Your task to perform on an android device: turn off data saver in the chrome app Image 0: 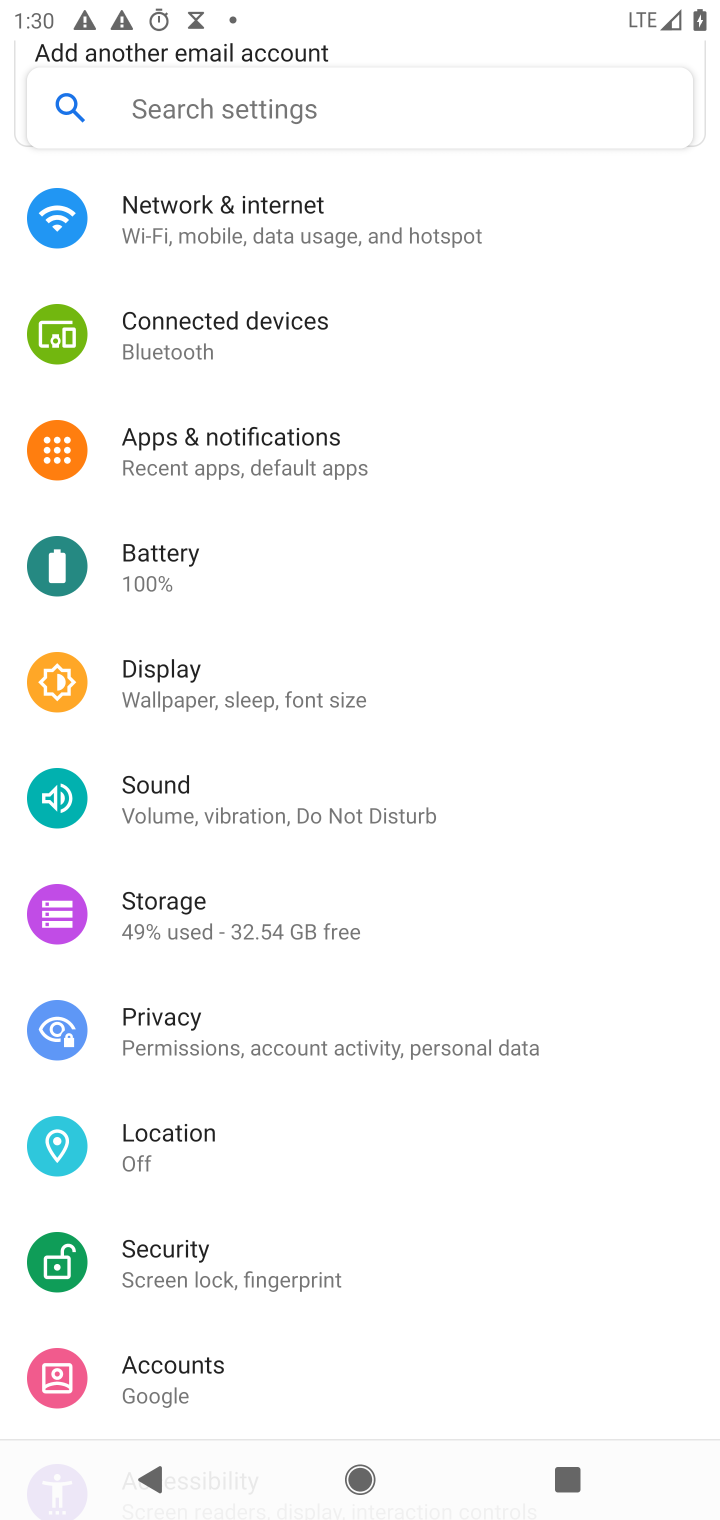
Step 0: press home button
Your task to perform on an android device: turn off data saver in the chrome app Image 1: 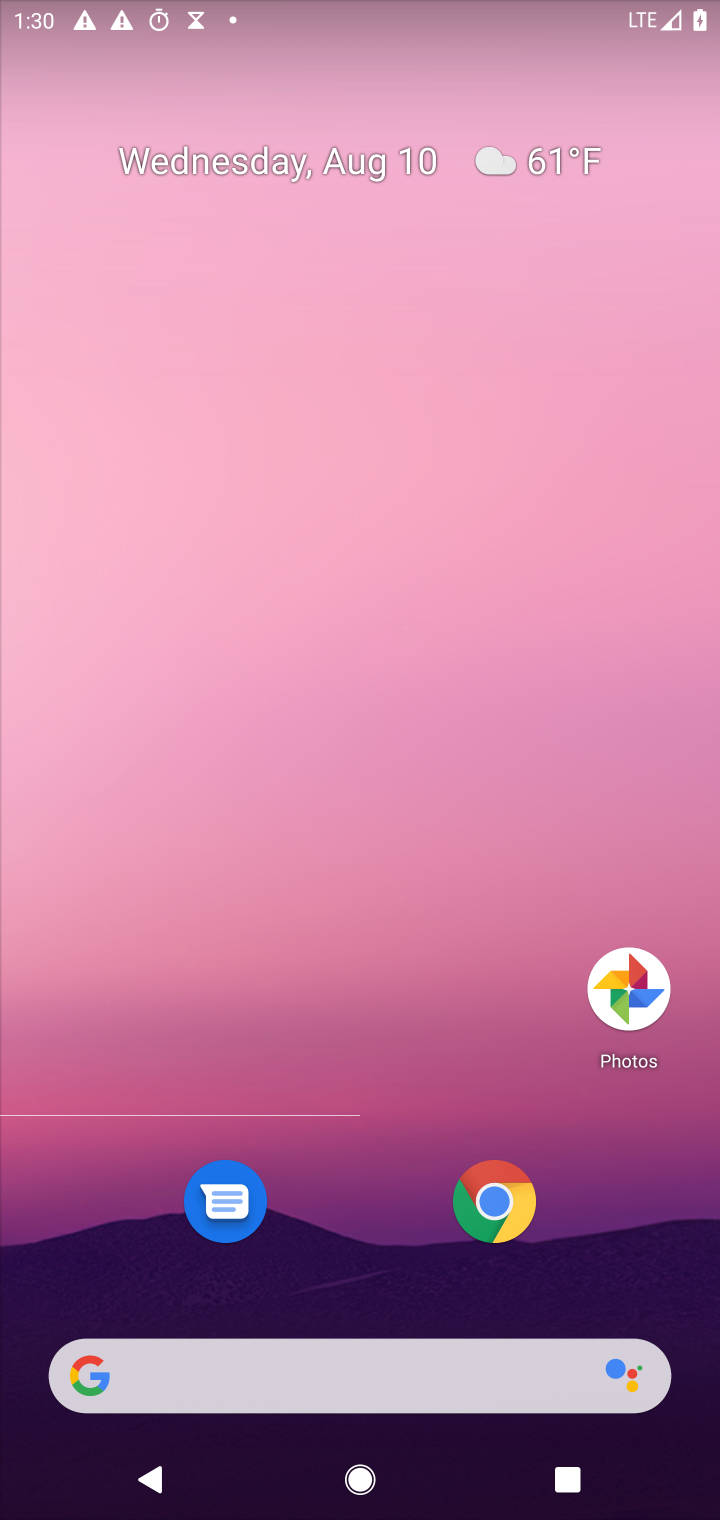
Step 1: click (499, 1206)
Your task to perform on an android device: turn off data saver in the chrome app Image 2: 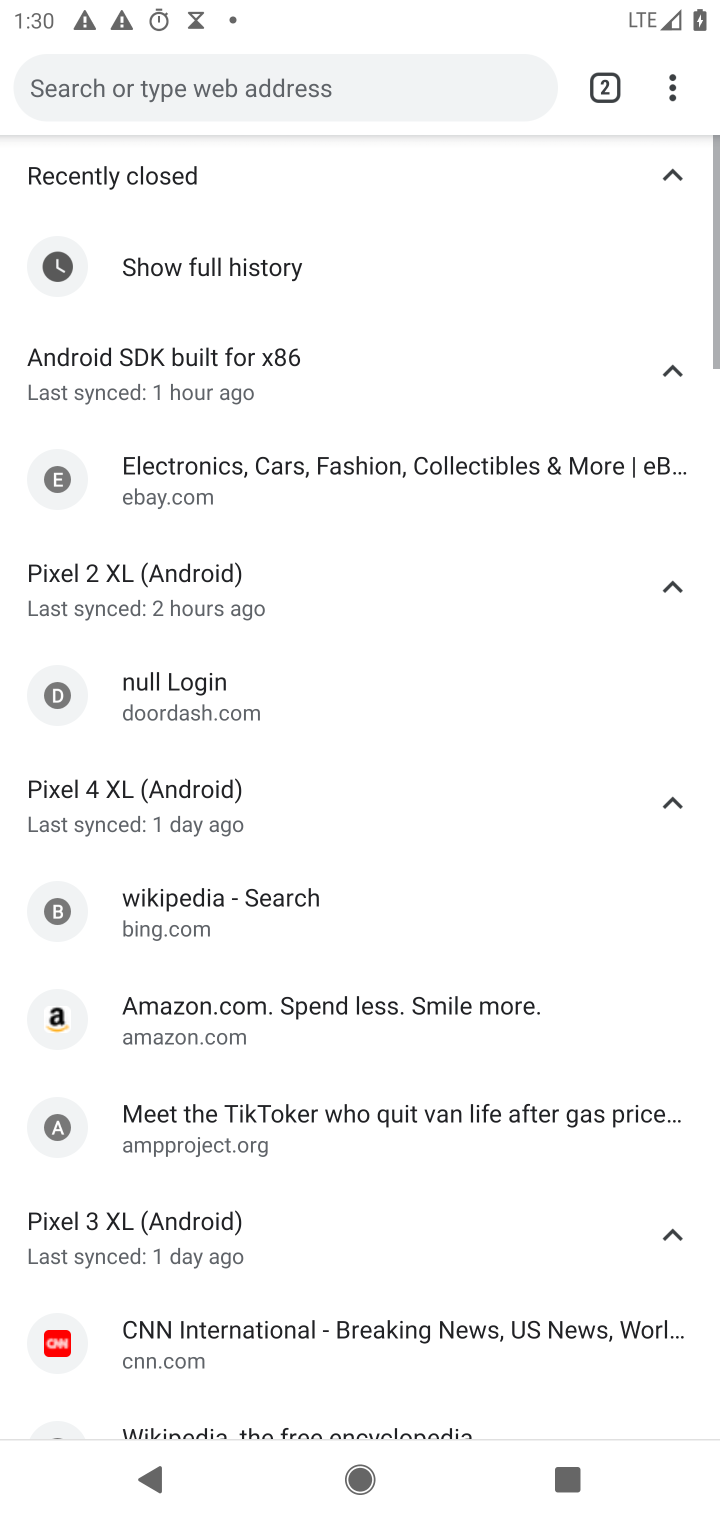
Step 2: drag from (667, 85) to (317, 756)
Your task to perform on an android device: turn off data saver in the chrome app Image 3: 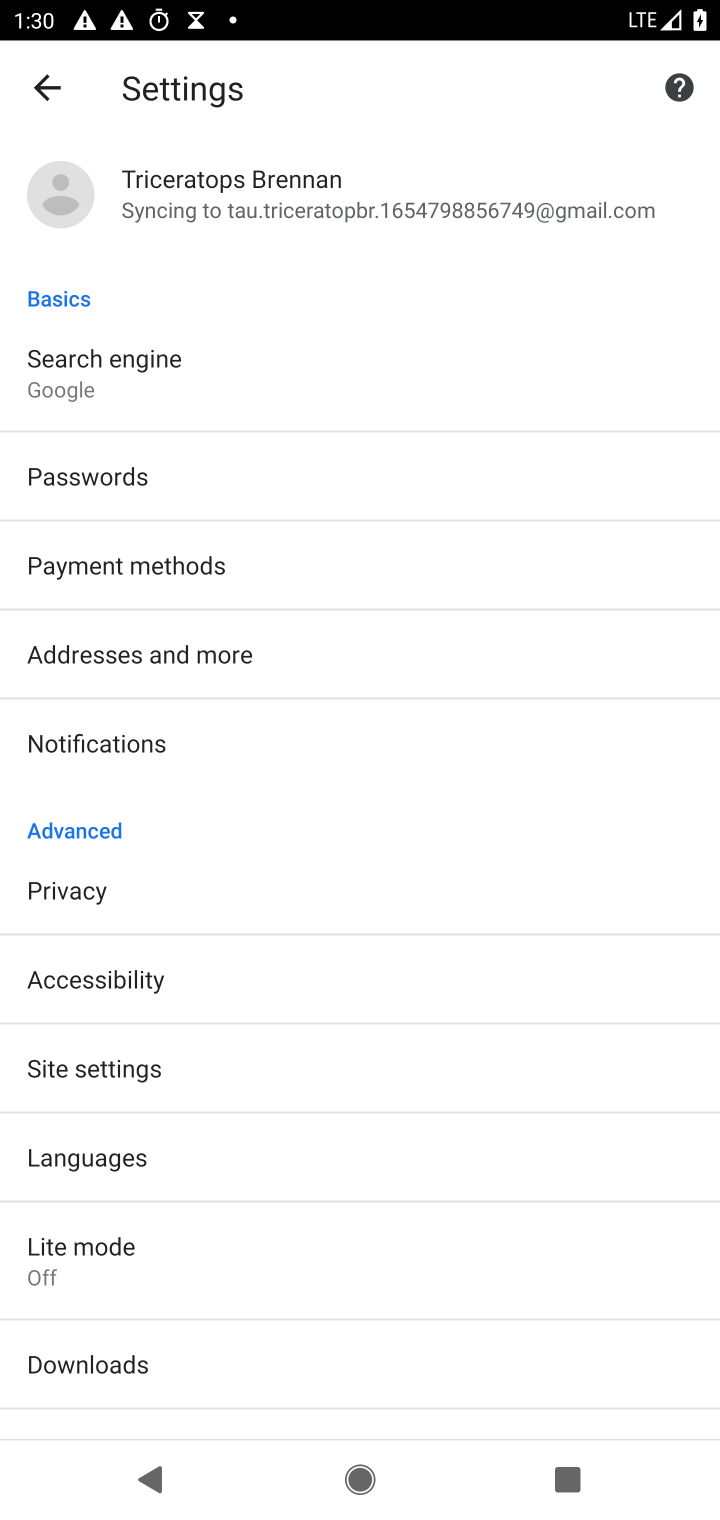
Step 3: click (33, 1261)
Your task to perform on an android device: turn off data saver in the chrome app Image 4: 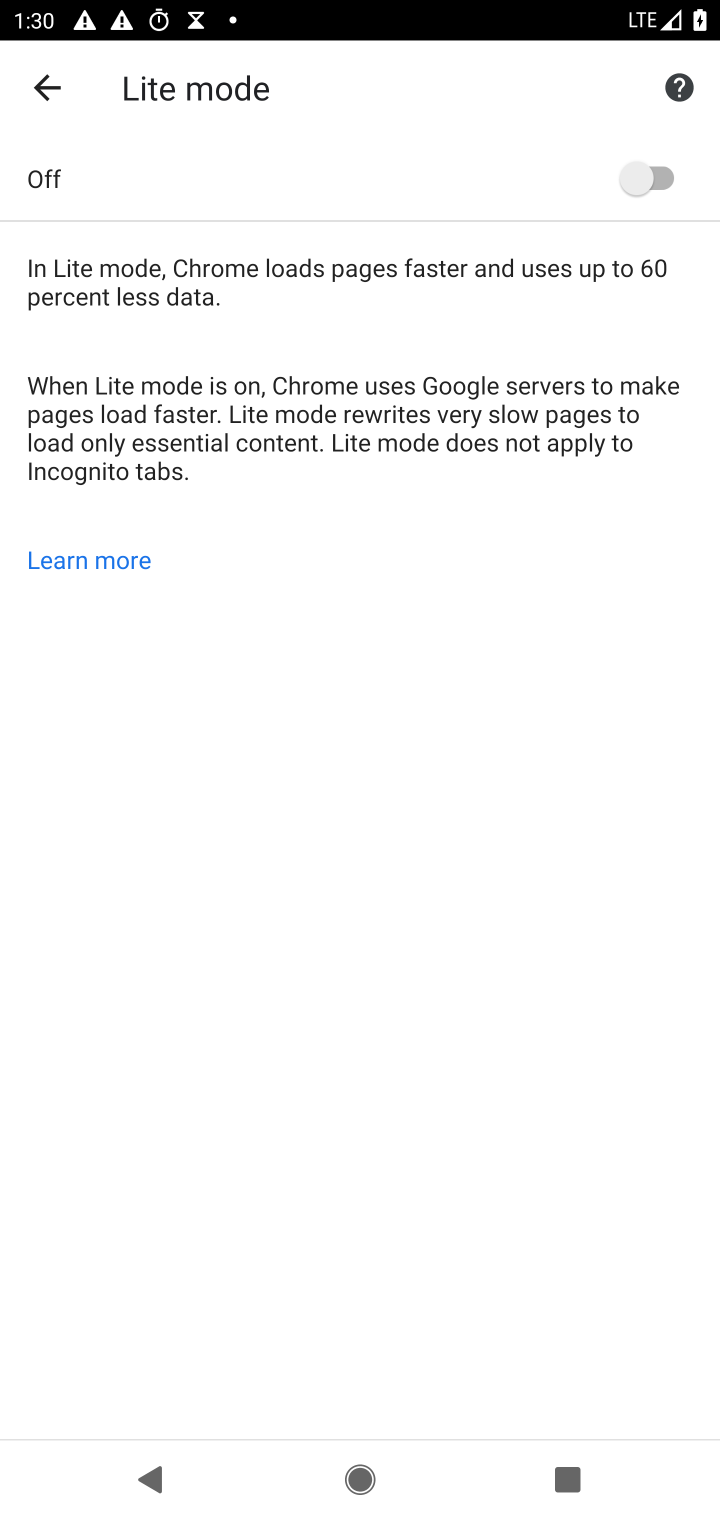
Step 4: task complete